Your task to perform on an android device: Open eBay Image 0: 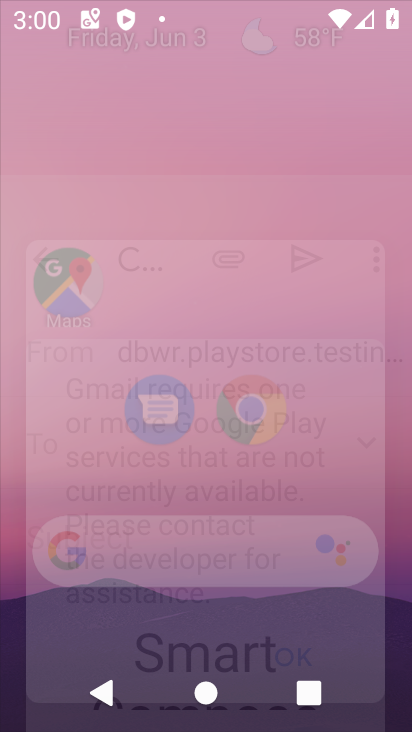
Step 0: click (157, 594)
Your task to perform on an android device: Open eBay Image 1: 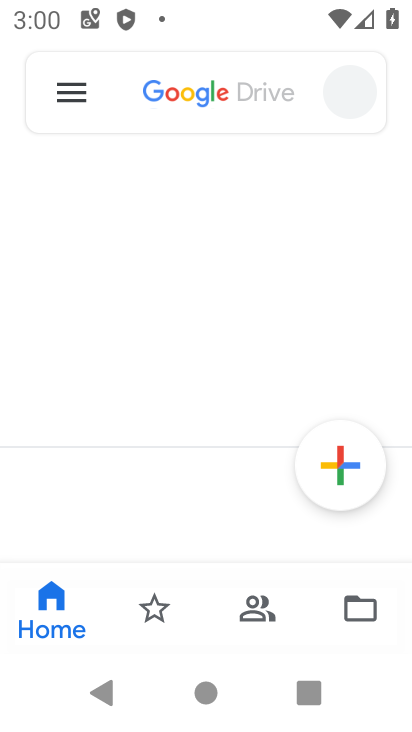
Step 1: click (147, 619)
Your task to perform on an android device: Open eBay Image 2: 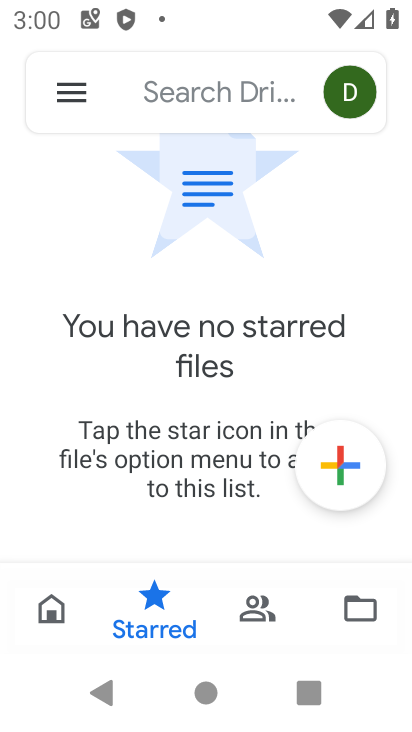
Step 2: press home button
Your task to perform on an android device: Open eBay Image 3: 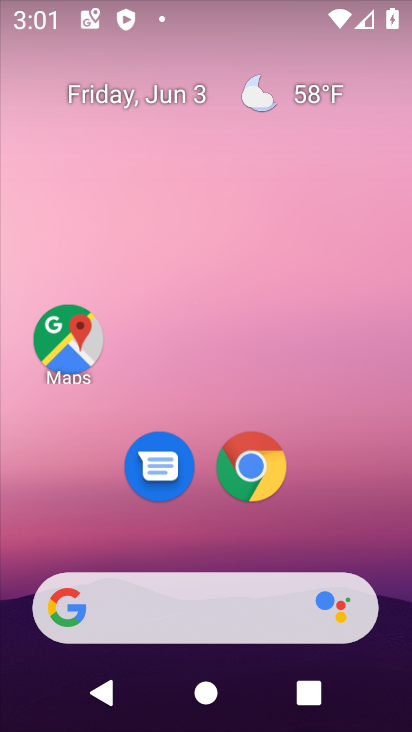
Step 3: click (234, 473)
Your task to perform on an android device: Open eBay Image 4: 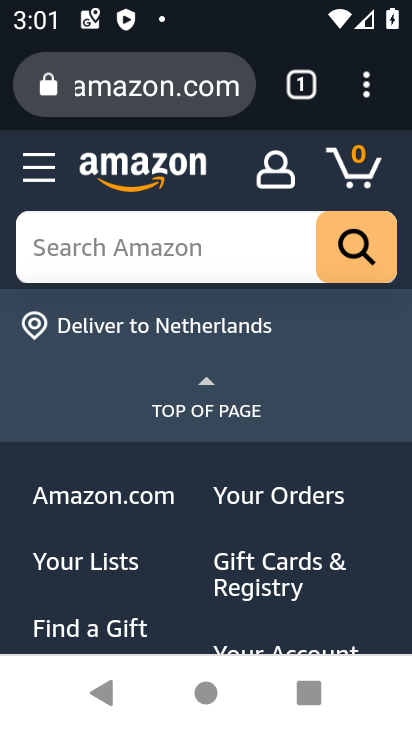
Step 4: click (296, 82)
Your task to perform on an android device: Open eBay Image 5: 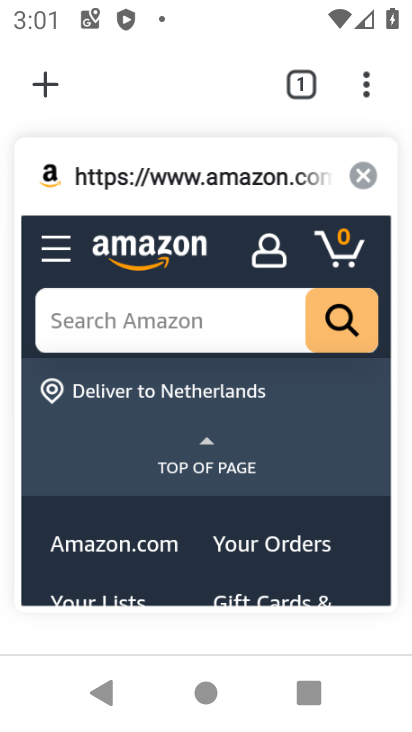
Step 5: click (49, 78)
Your task to perform on an android device: Open eBay Image 6: 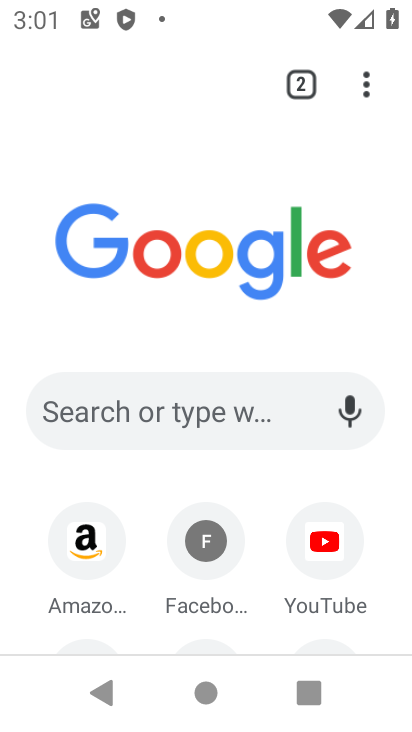
Step 6: drag from (274, 614) to (311, 314)
Your task to perform on an android device: Open eBay Image 7: 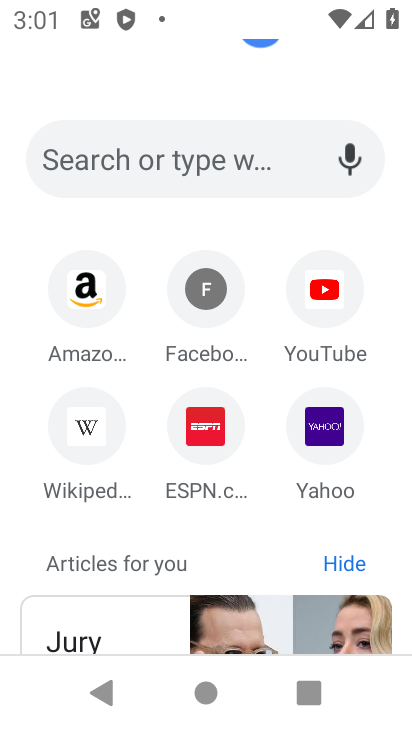
Step 7: click (219, 157)
Your task to perform on an android device: Open eBay Image 8: 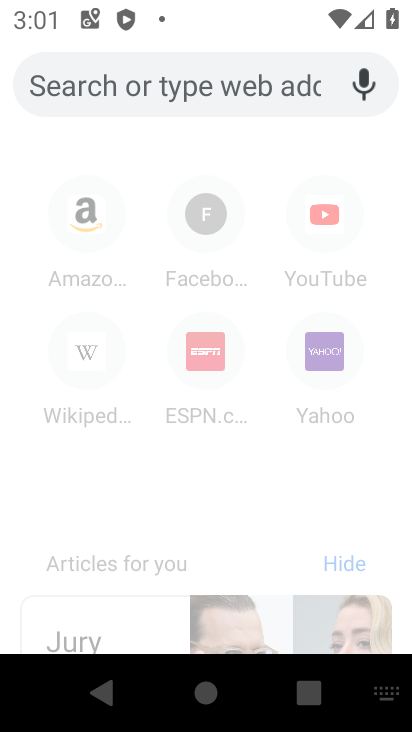
Step 8: type "ebay.com"
Your task to perform on an android device: Open eBay Image 9: 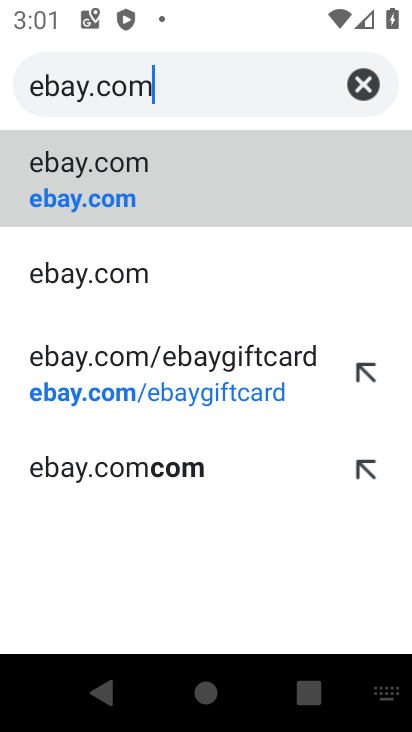
Step 9: click (319, 190)
Your task to perform on an android device: Open eBay Image 10: 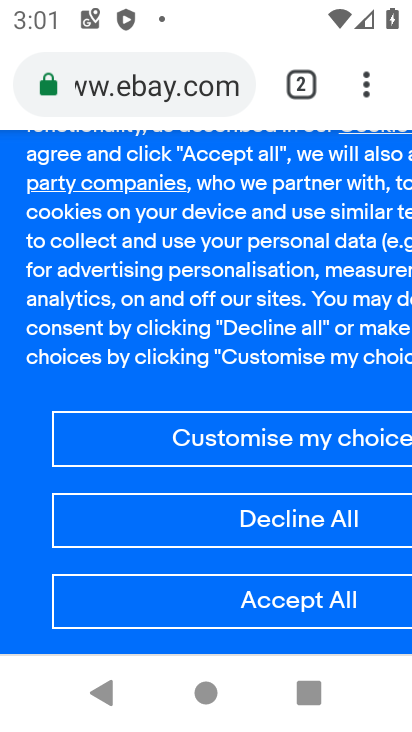
Step 10: task complete